Your task to perform on an android device: Open wifi settings Image 0: 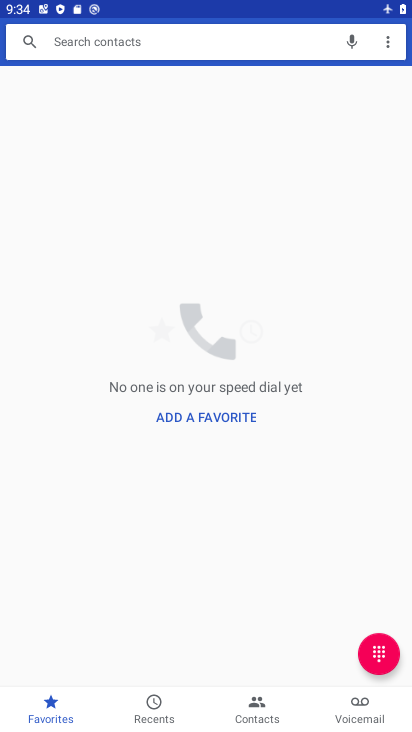
Step 0: press home button
Your task to perform on an android device: Open wifi settings Image 1: 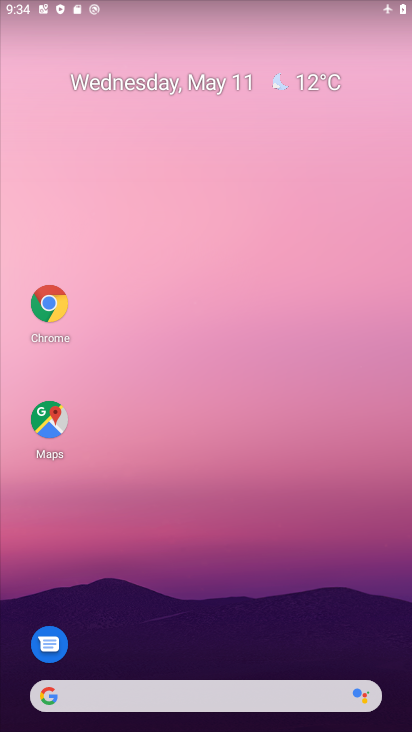
Step 1: drag from (227, 569) to (166, 197)
Your task to perform on an android device: Open wifi settings Image 2: 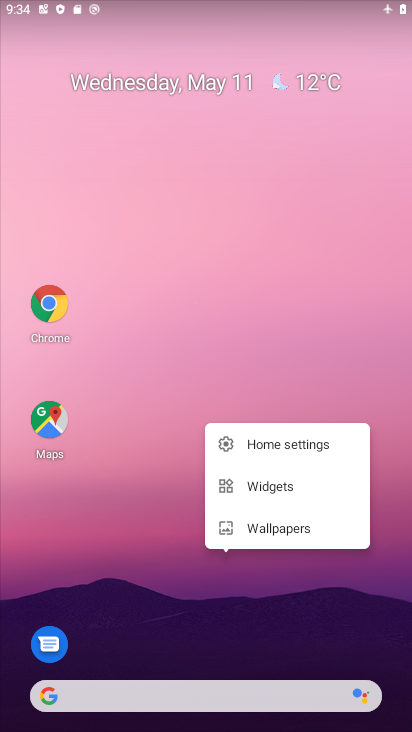
Step 2: drag from (120, 636) to (111, 156)
Your task to perform on an android device: Open wifi settings Image 3: 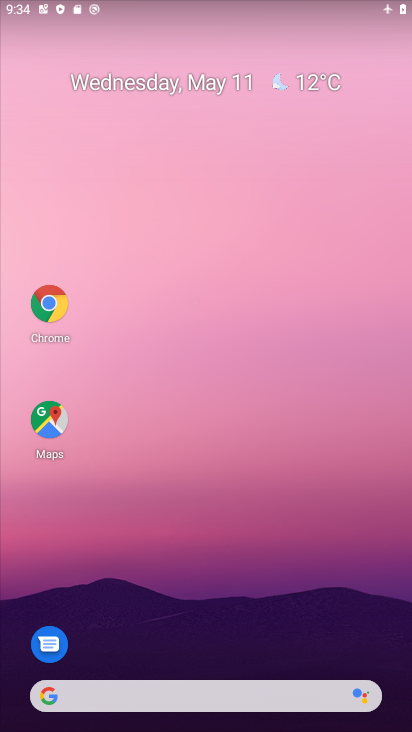
Step 3: drag from (239, 666) to (188, 126)
Your task to perform on an android device: Open wifi settings Image 4: 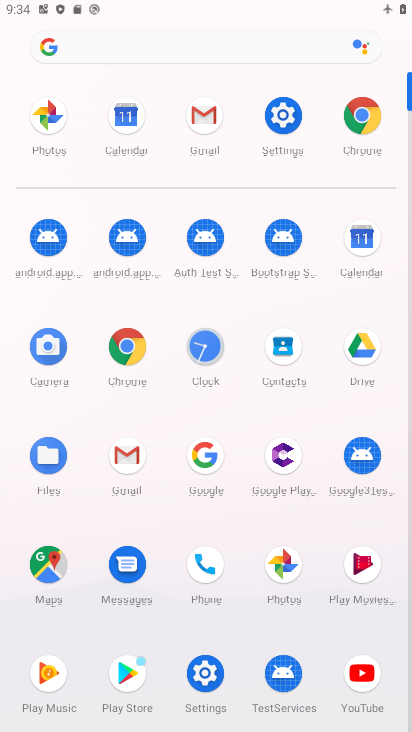
Step 4: click (292, 124)
Your task to perform on an android device: Open wifi settings Image 5: 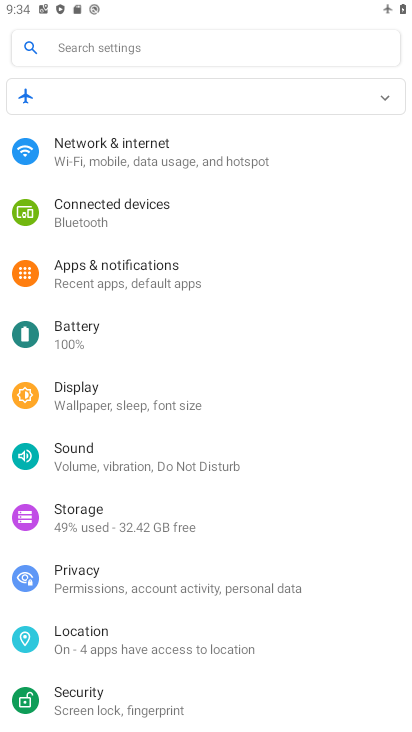
Step 5: click (231, 158)
Your task to perform on an android device: Open wifi settings Image 6: 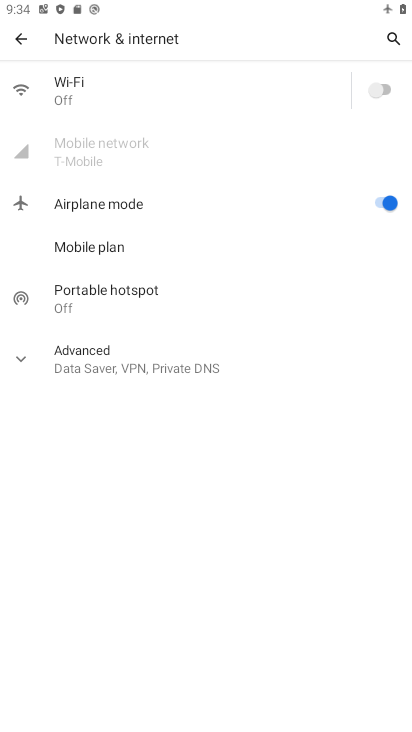
Step 6: click (100, 96)
Your task to perform on an android device: Open wifi settings Image 7: 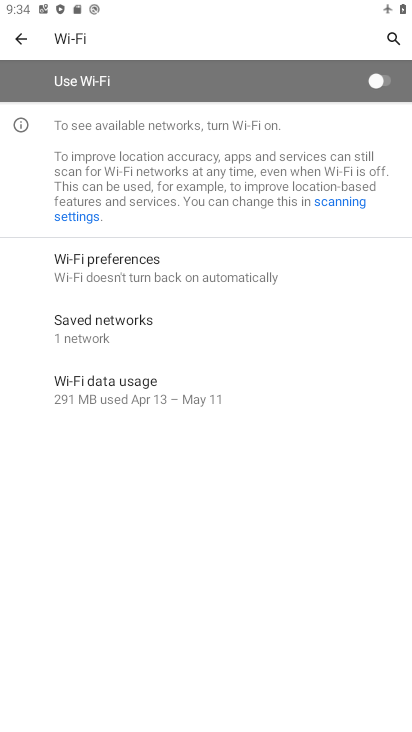
Step 7: task complete